Your task to perform on an android device: delete browsing data in the chrome app Image 0: 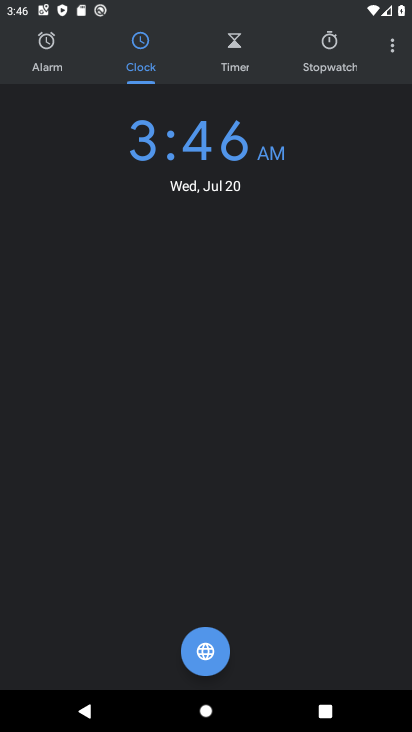
Step 0: press home button
Your task to perform on an android device: delete browsing data in the chrome app Image 1: 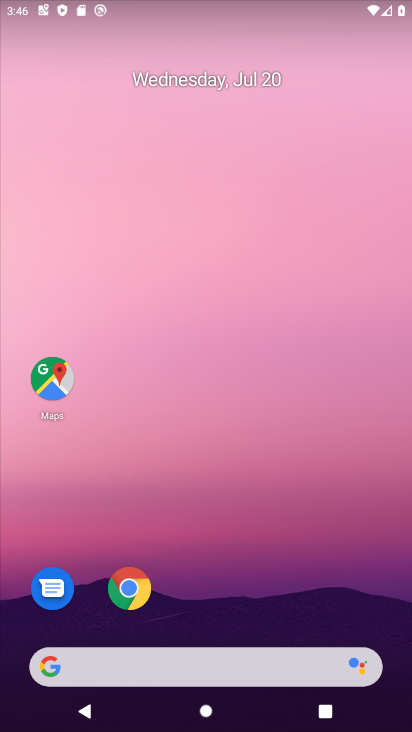
Step 1: click (130, 590)
Your task to perform on an android device: delete browsing data in the chrome app Image 2: 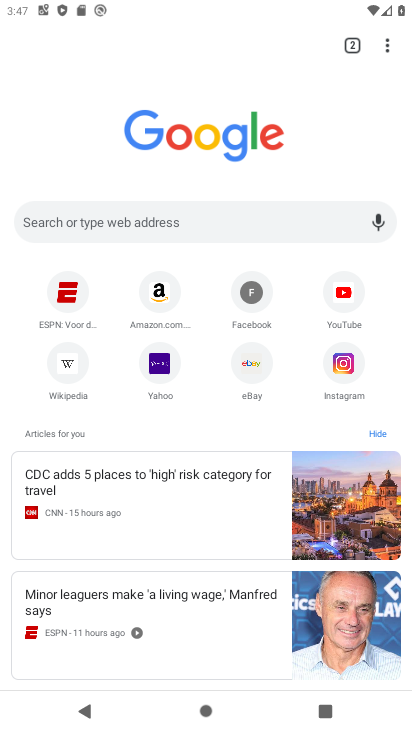
Step 2: drag from (387, 42) to (229, 250)
Your task to perform on an android device: delete browsing data in the chrome app Image 3: 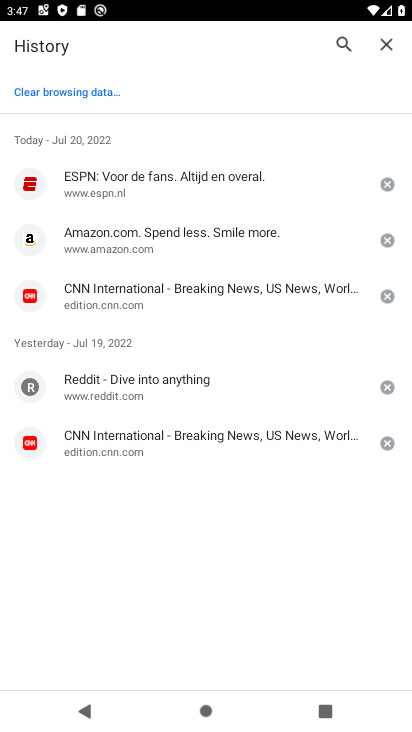
Step 3: click (95, 91)
Your task to perform on an android device: delete browsing data in the chrome app Image 4: 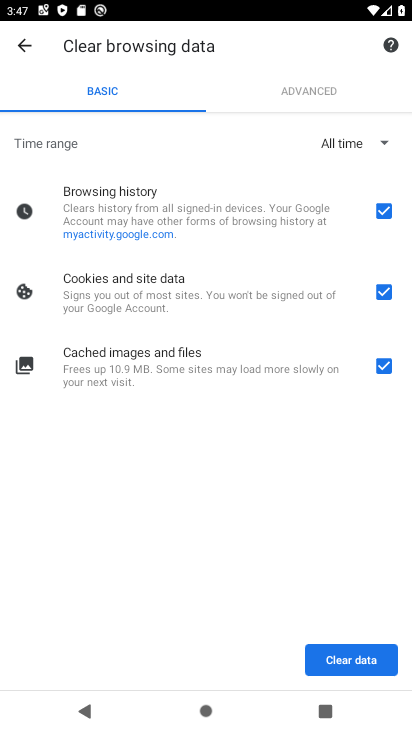
Step 4: click (372, 655)
Your task to perform on an android device: delete browsing data in the chrome app Image 5: 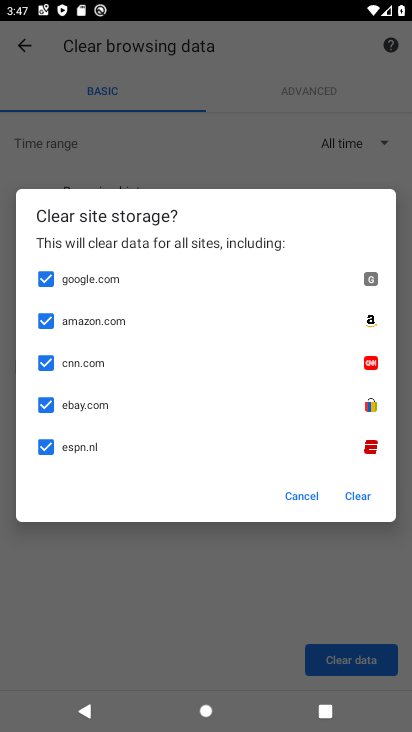
Step 5: click (361, 491)
Your task to perform on an android device: delete browsing data in the chrome app Image 6: 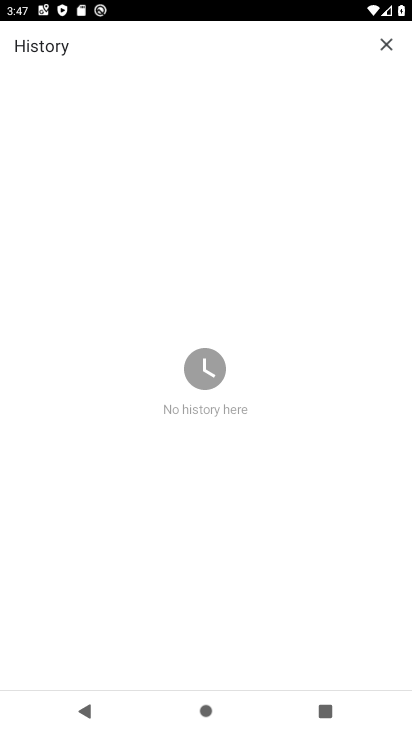
Step 6: task complete